Your task to perform on an android device: turn off priority inbox in the gmail app Image 0: 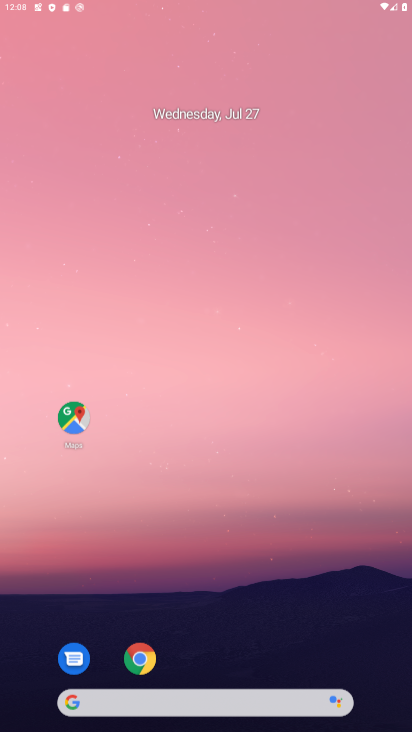
Step 0: press home button
Your task to perform on an android device: turn off priority inbox in the gmail app Image 1: 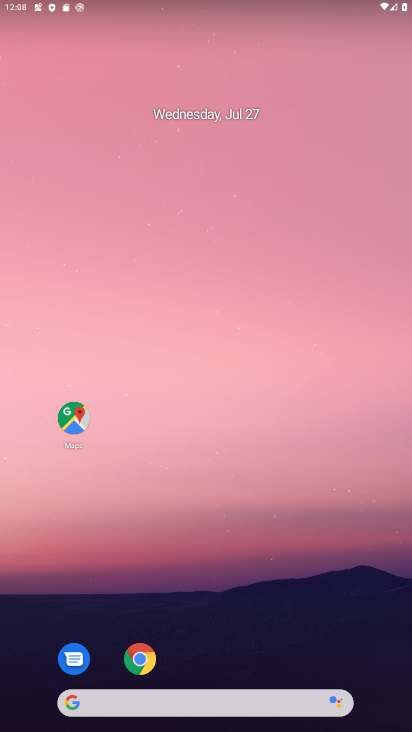
Step 1: drag from (218, 656) to (217, 1)
Your task to perform on an android device: turn off priority inbox in the gmail app Image 2: 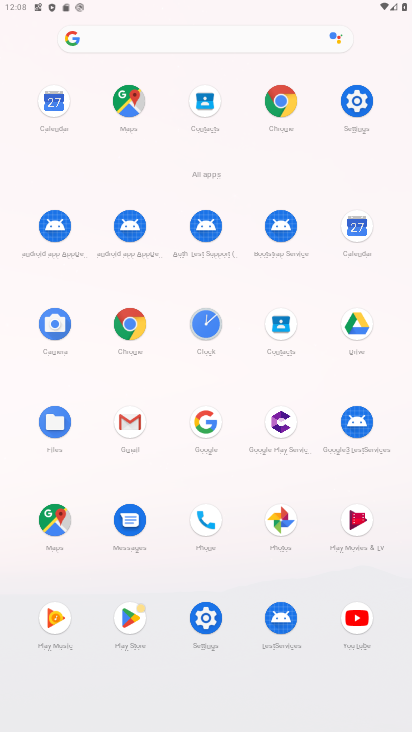
Step 2: click (131, 419)
Your task to perform on an android device: turn off priority inbox in the gmail app Image 3: 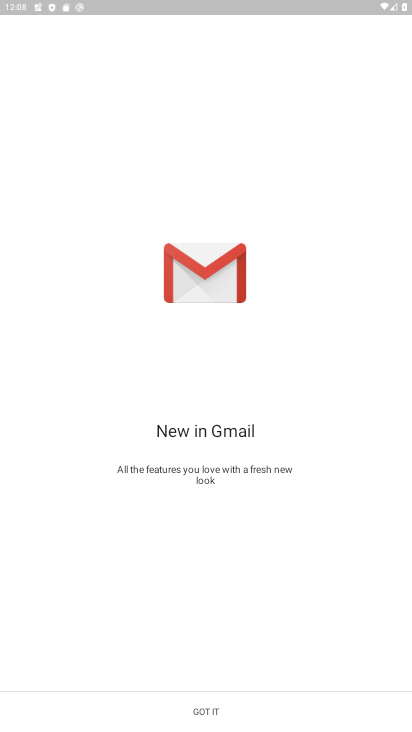
Step 3: click (195, 708)
Your task to perform on an android device: turn off priority inbox in the gmail app Image 4: 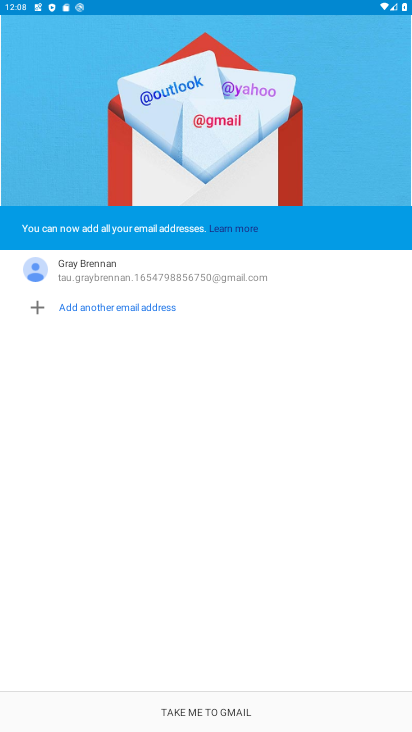
Step 4: click (203, 709)
Your task to perform on an android device: turn off priority inbox in the gmail app Image 5: 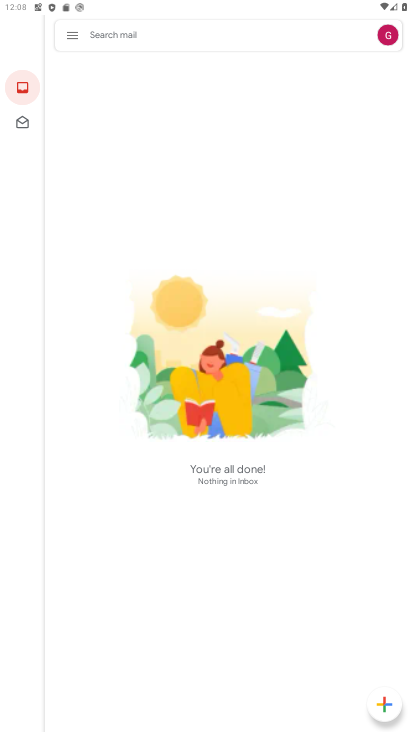
Step 5: click (69, 31)
Your task to perform on an android device: turn off priority inbox in the gmail app Image 6: 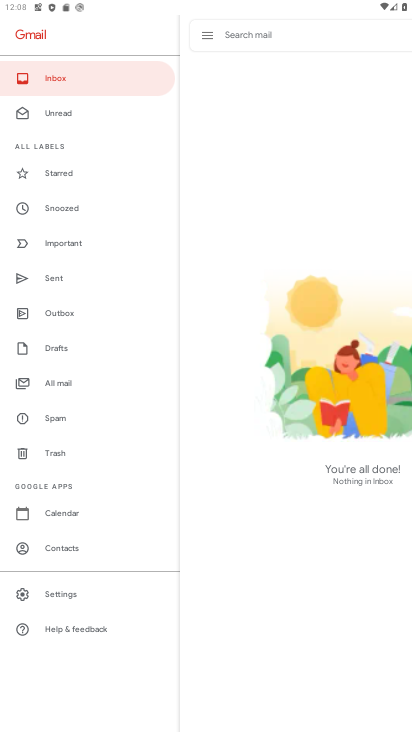
Step 6: click (83, 593)
Your task to perform on an android device: turn off priority inbox in the gmail app Image 7: 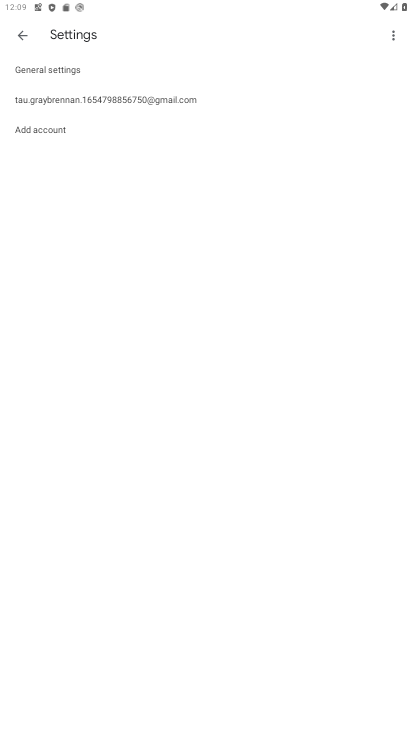
Step 7: click (186, 98)
Your task to perform on an android device: turn off priority inbox in the gmail app Image 8: 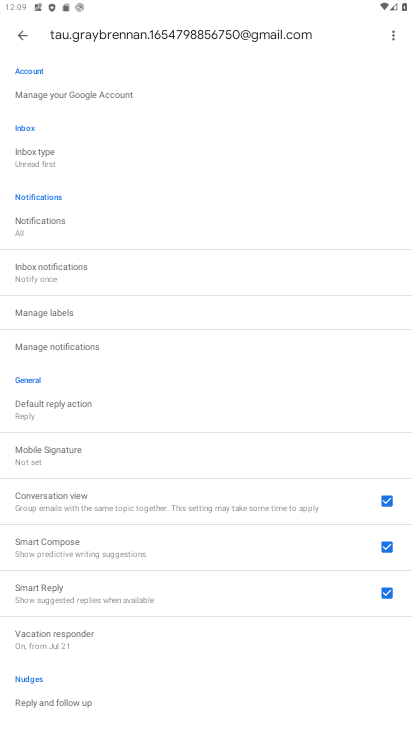
Step 8: click (59, 158)
Your task to perform on an android device: turn off priority inbox in the gmail app Image 9: 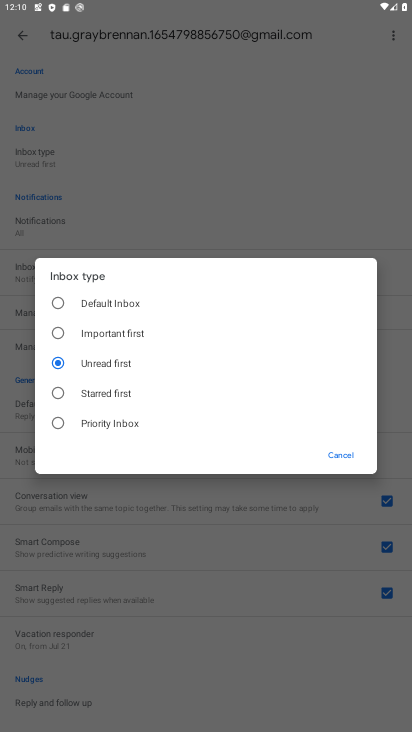
Step 9: click (60, 393)
Your task to perform on an android device: turn off priority inbox in the gmail app Image 10: 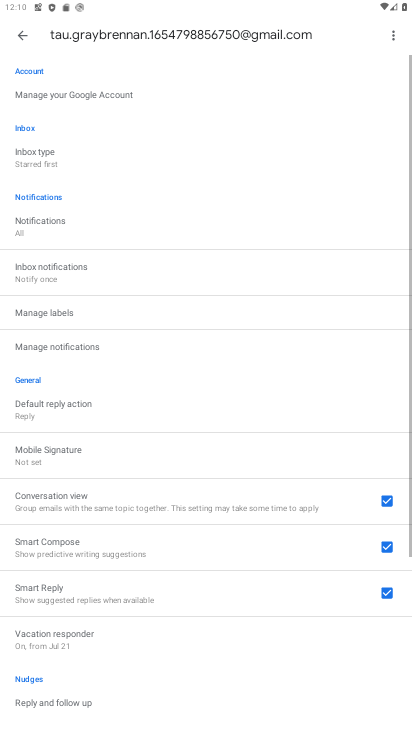
Step 10: task complete